Your task to perform on an android device: Check the news Image 0: 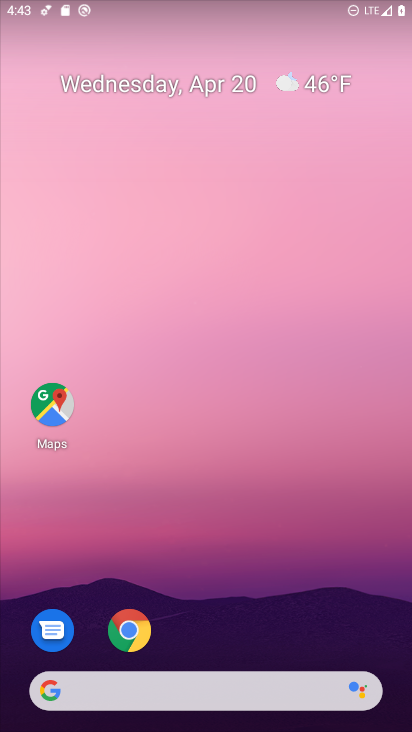
Step 0: drag from (259, 544) to (296, 19)
Your task to perform on an android device: Check the news Image 1: 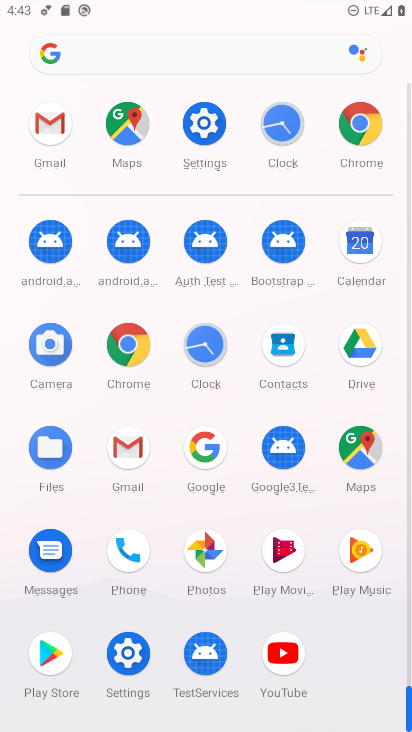
Step 1: click (114, 343)
Your task to perform on an android device: Check the news Image 2: 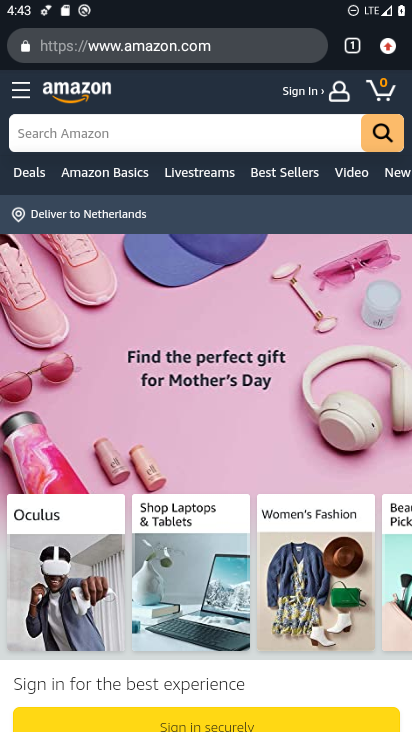
Step 2: click (185, 48)
Your task to perform on an android device: Check the news Image 3: 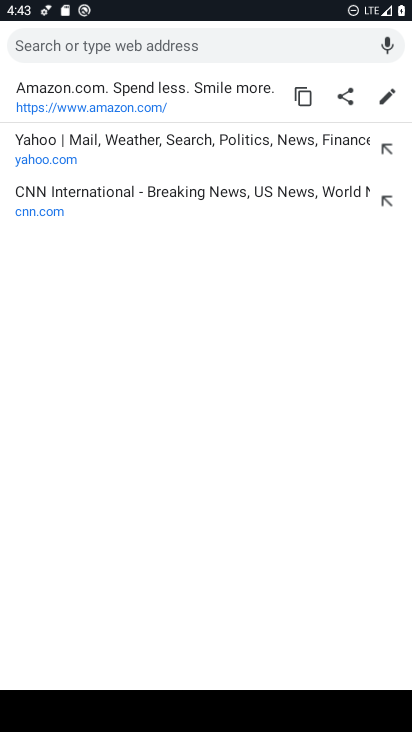
Step 3: type "news"
Your task to perform on an android device: Check the news Image 4: 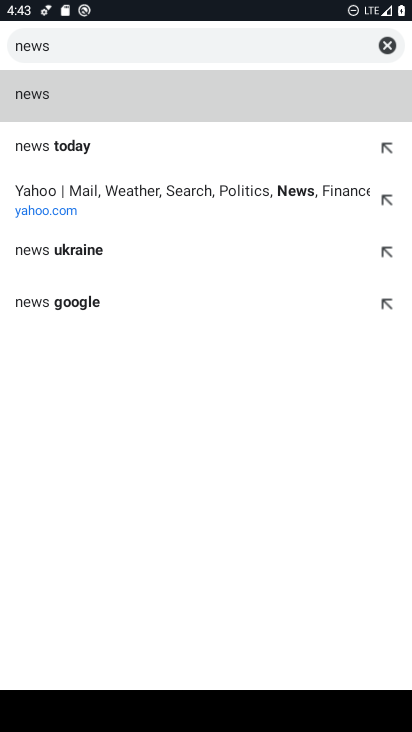
Step 4: click (90, 98)
Your task to perform on an android device: Check the news Image 5: 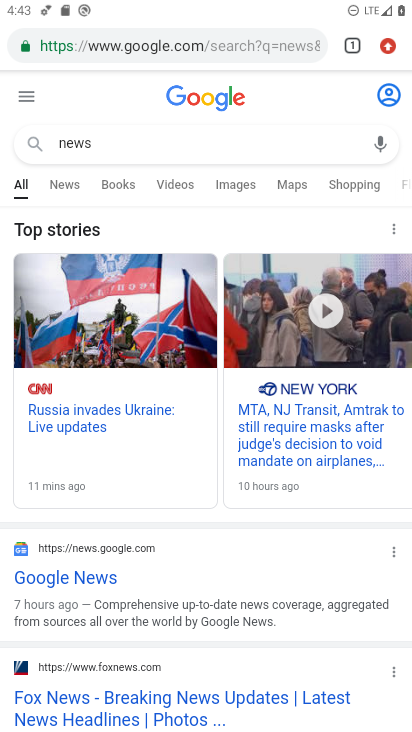
Step 5: task complete